Your task to perform on an android device: add a contact in the contacts app Image 0: 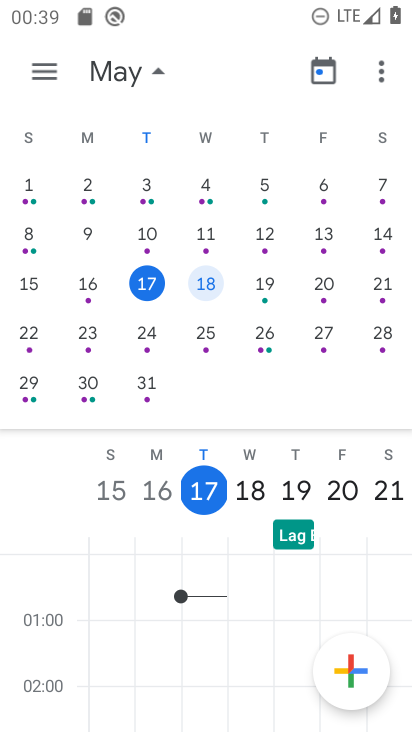
Step 0: press home button
Your task to perform on an android device: add a contact in the contacts app Image 1: 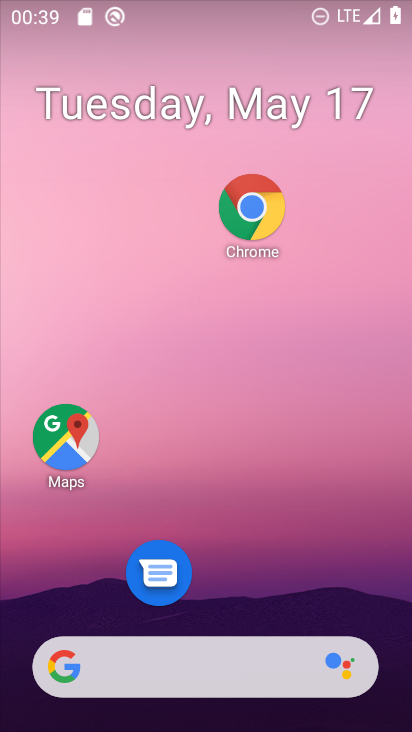
Step 1: drag from (231, 694) to (294, 152)
Your task to perform on an android device: add a contact in the contacts app Image 2: 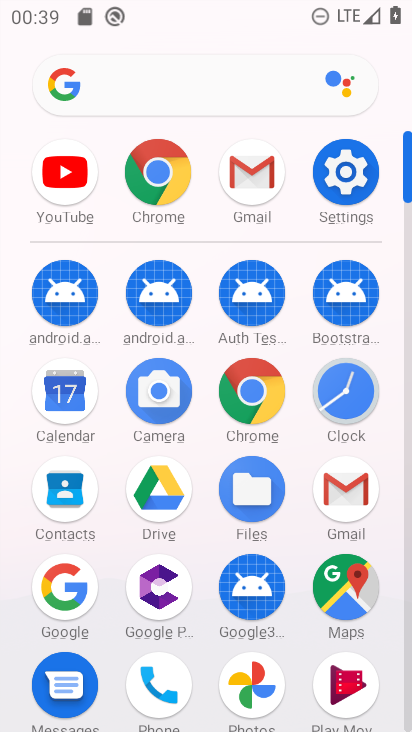
Step 2: click (45, 514)
Your task to perform on an android device: add a contact in the contacts app Image 3: 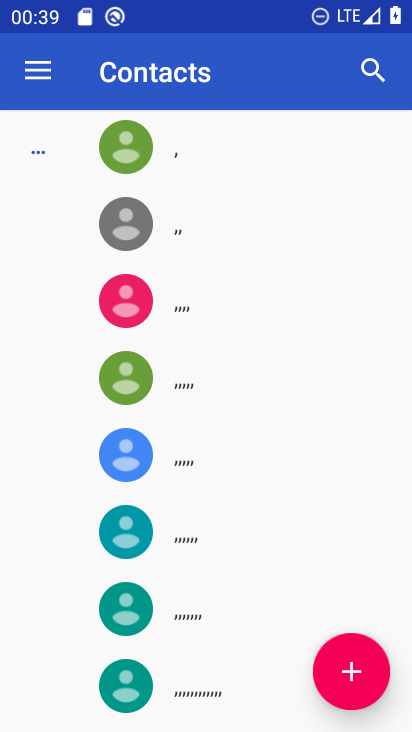
Step 3: click (351, 669)
Your task to perform on an android device: add a contact in the contacts app Image 4: 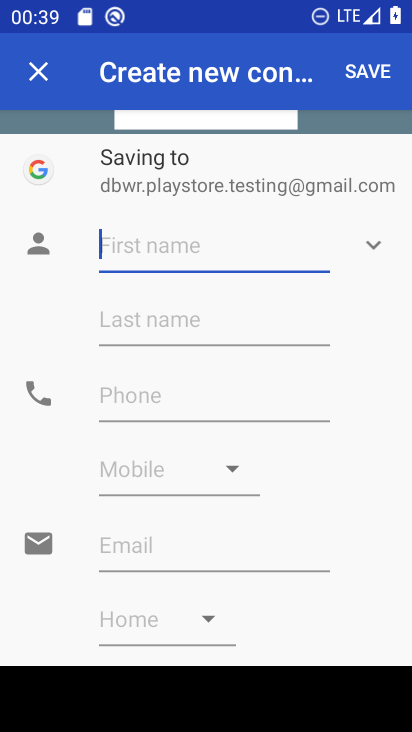
Step 4: type "jksshdkhhk"
Your task to perform on an android device: add a contact in the contacts app Image 5: 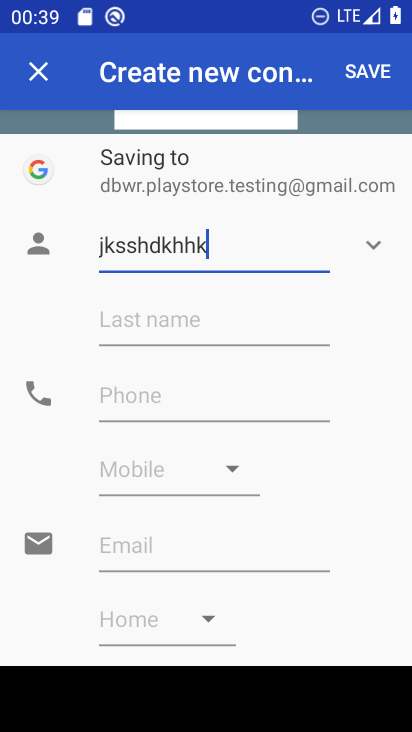
Step 5: click (262, 410)
Your task to perform on an android device: add a contact in the contacts app Image 6: 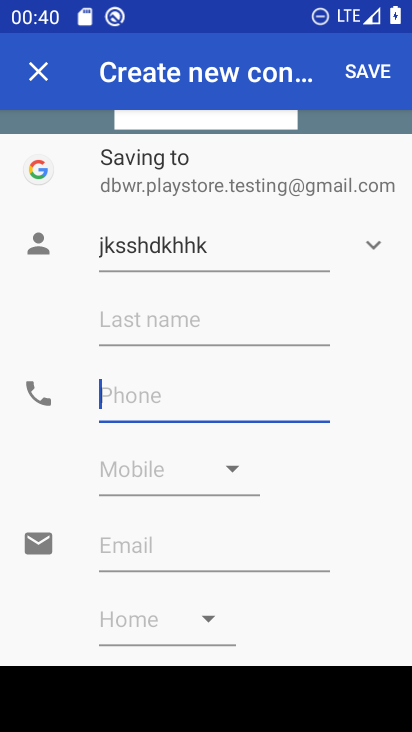
Step 6: type "9875657577"
Your task to perform on an android device: add a contact in the contacts app Image 7: 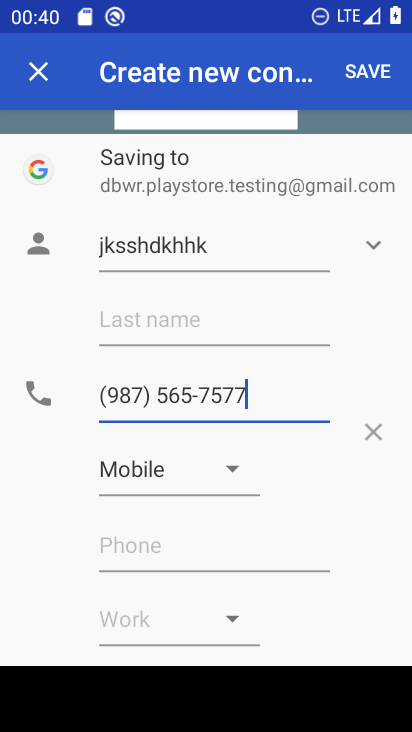
Step 7: click (367, 69)
Your task to perform on an android device: add a contact in the contacts app Image 8: 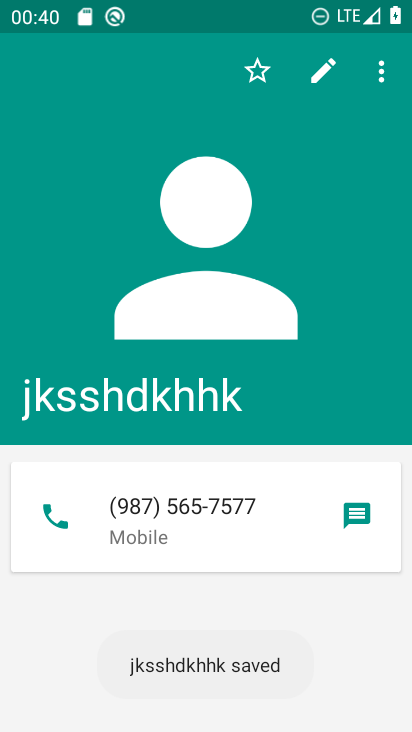
Step 8: task complete